Your task to perform on an android device: Is it going to rain this weekend? Image 0: 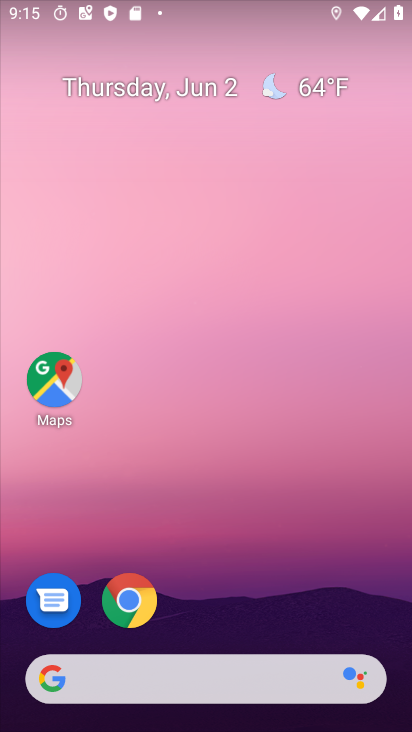
Step 0: drag from (213, 586) to (246, 35)
Your task to perform on an android device: Is it going to rain this weekend? Image 1: 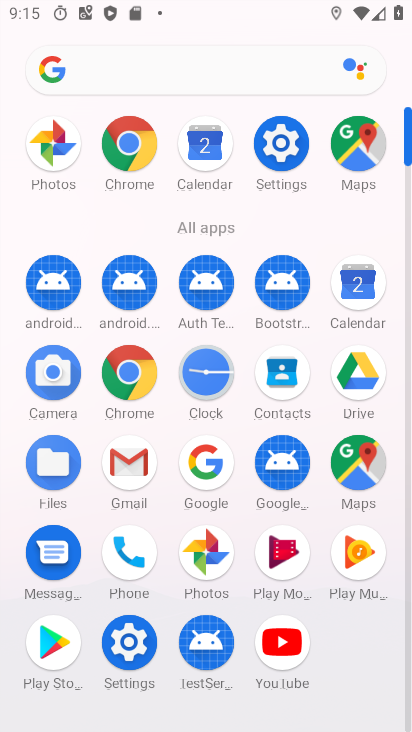
Step 1: click (206, 471)
Your task to perform on an android device: Is it going to rain this weekend? Image 2: 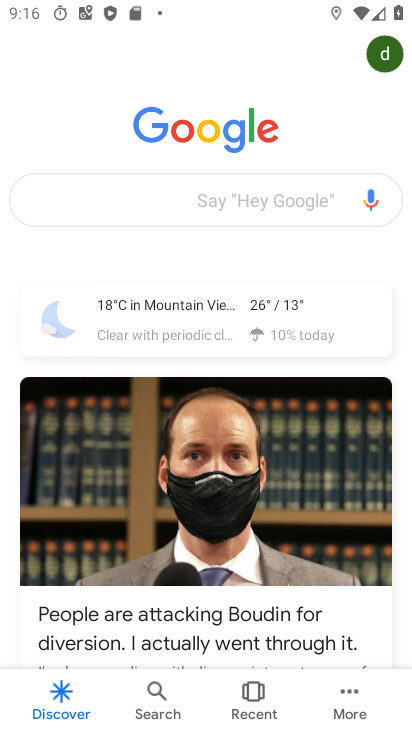
Step 2: click (177, 208)
Your task to perform on an android device: Is it going to rain this weekend? Image 3: 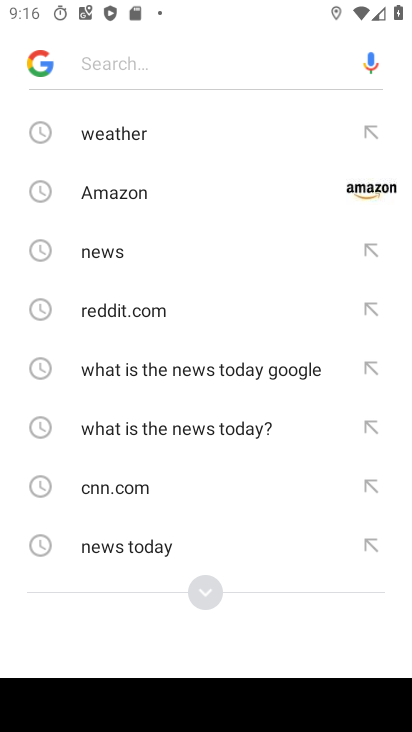
Step 3: click (187, 598)
Your task to perform on an android device: Is it going to rain this weekend? Image 4: 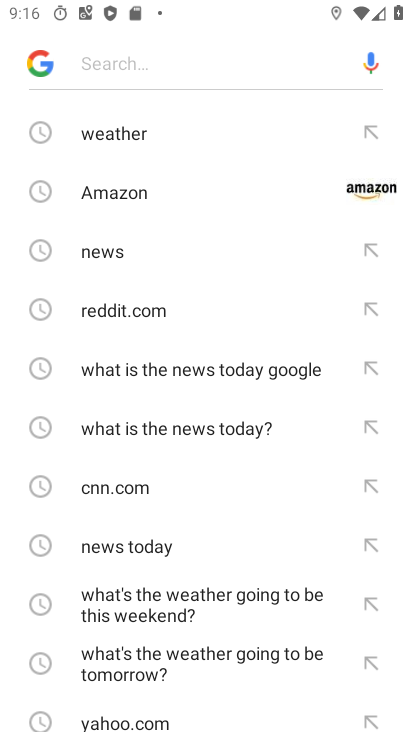
Step 4: drag from (248, 624) to (272, 204)
Your task to perform on an android device: Is it going to rain this weekend? Image 5: 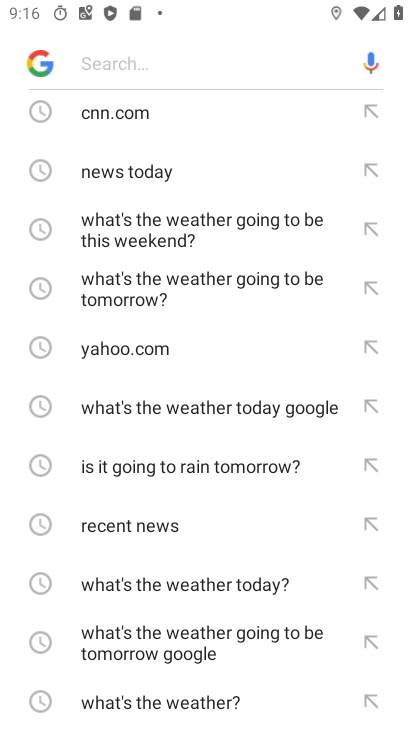
Step 5: drag from (243, 650) to (263, 318)
Your task to perform on an android device: Is it going to rain this weekend? Image 6: 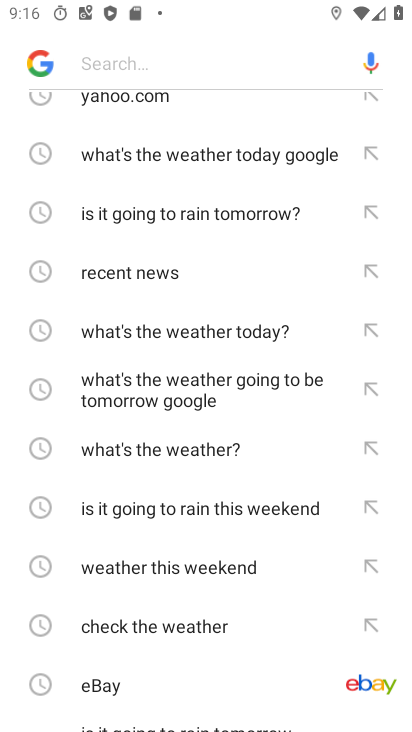
Step 6: click (179, 513)
Your task to perform on an android device: Is it going to rain this weekend? Image 7: 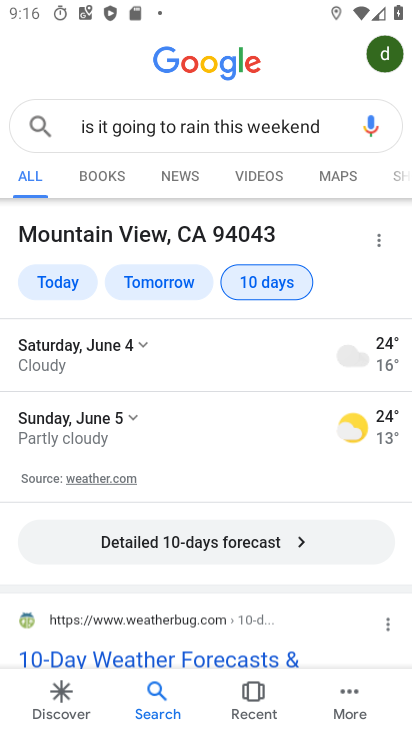
Step 7: task complete